Your task to perform on an android device: Open Google Chrome and open the bookmarks view Image 0: 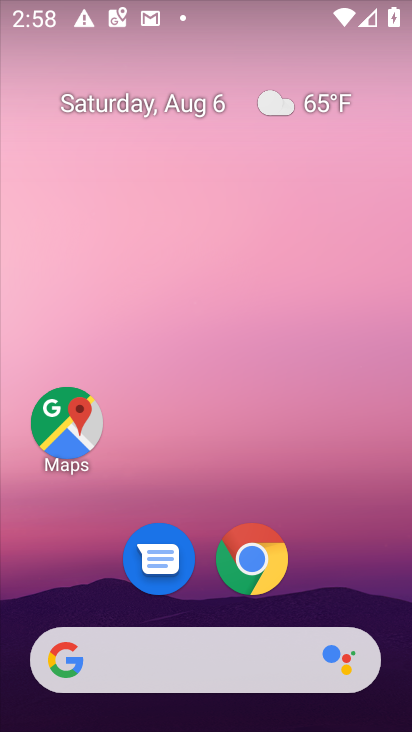
Step 0: click (268, 543)
Your task to perform on an android device: Open Google Chrome and open the bookmarks view Image 1: 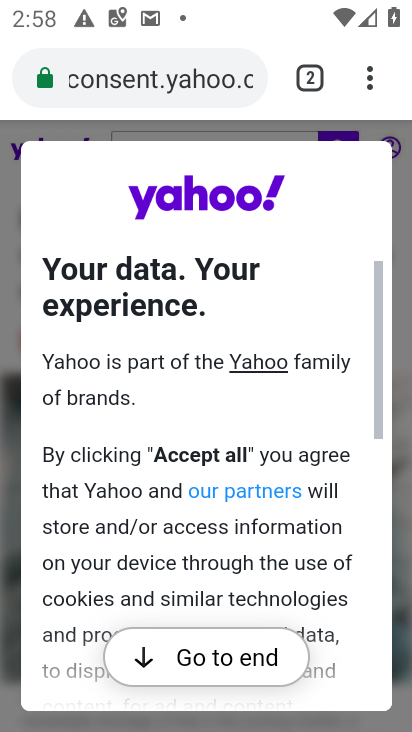
Step 1: click (367, 72)
Your task to perform on an android device: Open Google Chrome and open the bookmarks view Image 2: 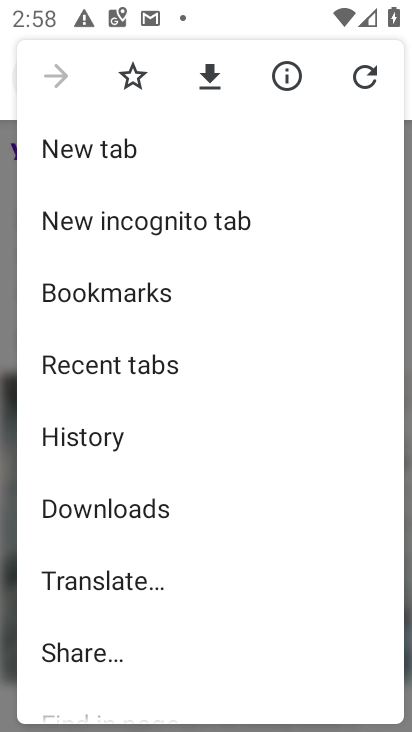
Step 2: click (190, 286)
Your task to perform on an android device: Open Google Chrome and open the bookmarks view Image 3: 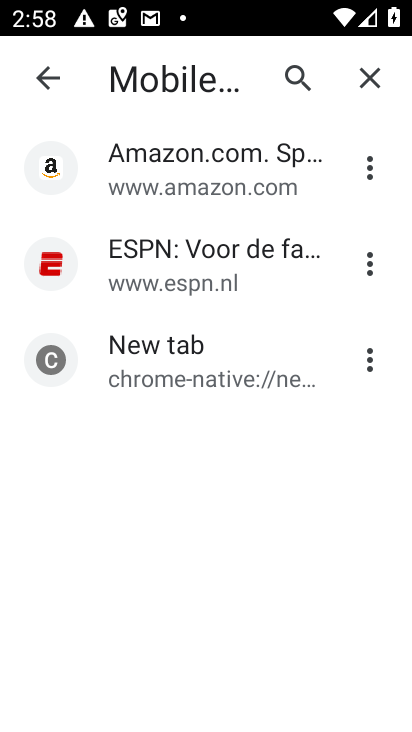
Step 3: task complete